Your task to perform on an android device: Go to Yahoo.com Image 0: 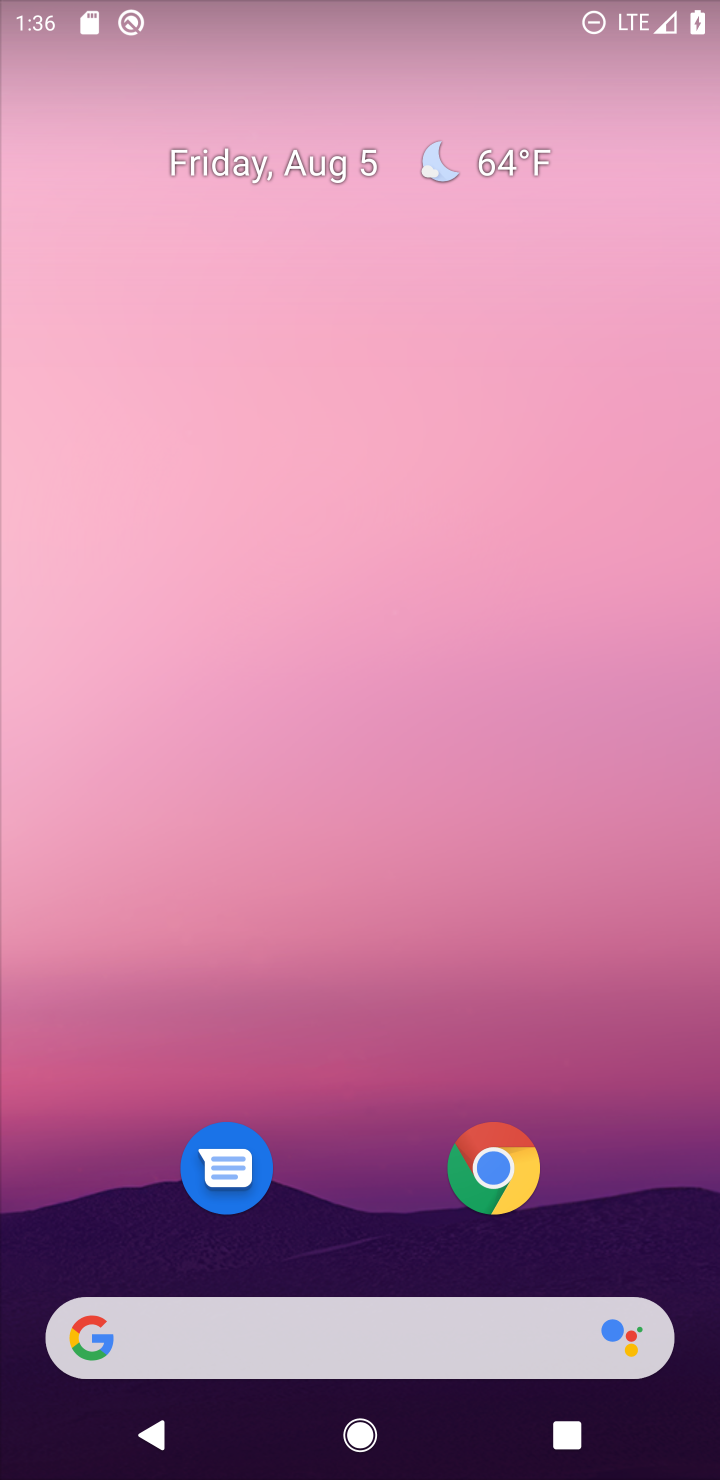
Step 0: drag from (560, 29) to (46, 188)
Your task to perform on an android device: Go to Yahoo.com Image 1: 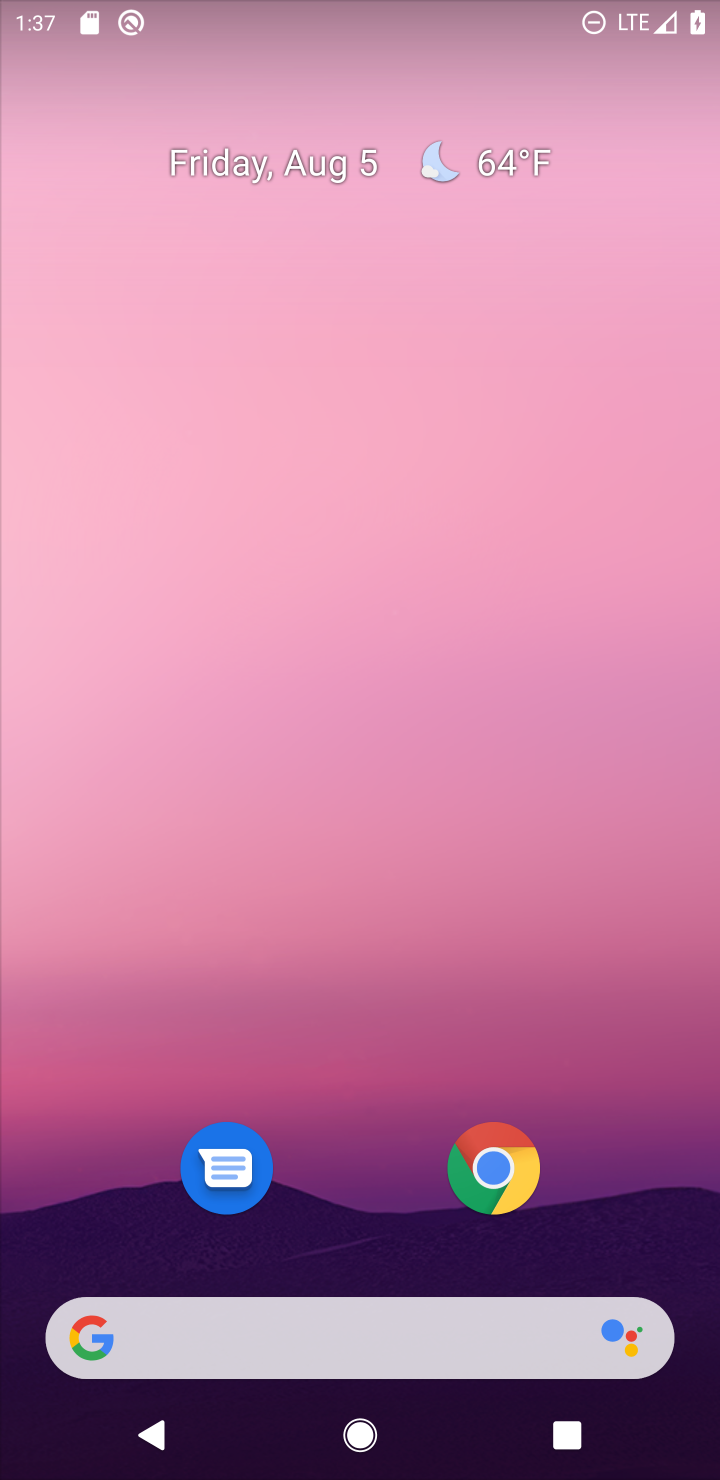
Step 1: drag from (526, 606) to (421, 151)
Your task to perform on an android device: Go to Yahoo.com Image 2: 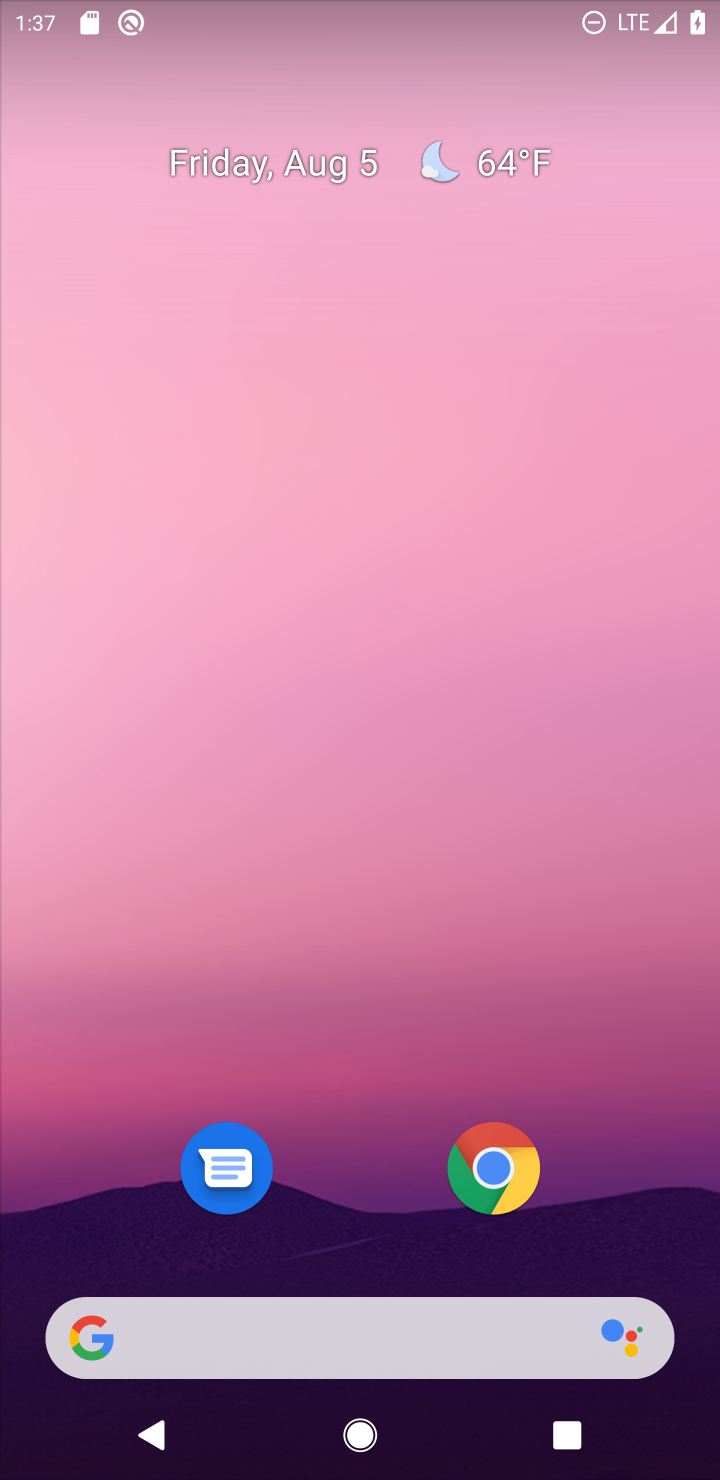
Step 2: drag from (693, 1220) to (422, 491)
Your task to perform on an android device: Go to Yahoo.com Image 3: 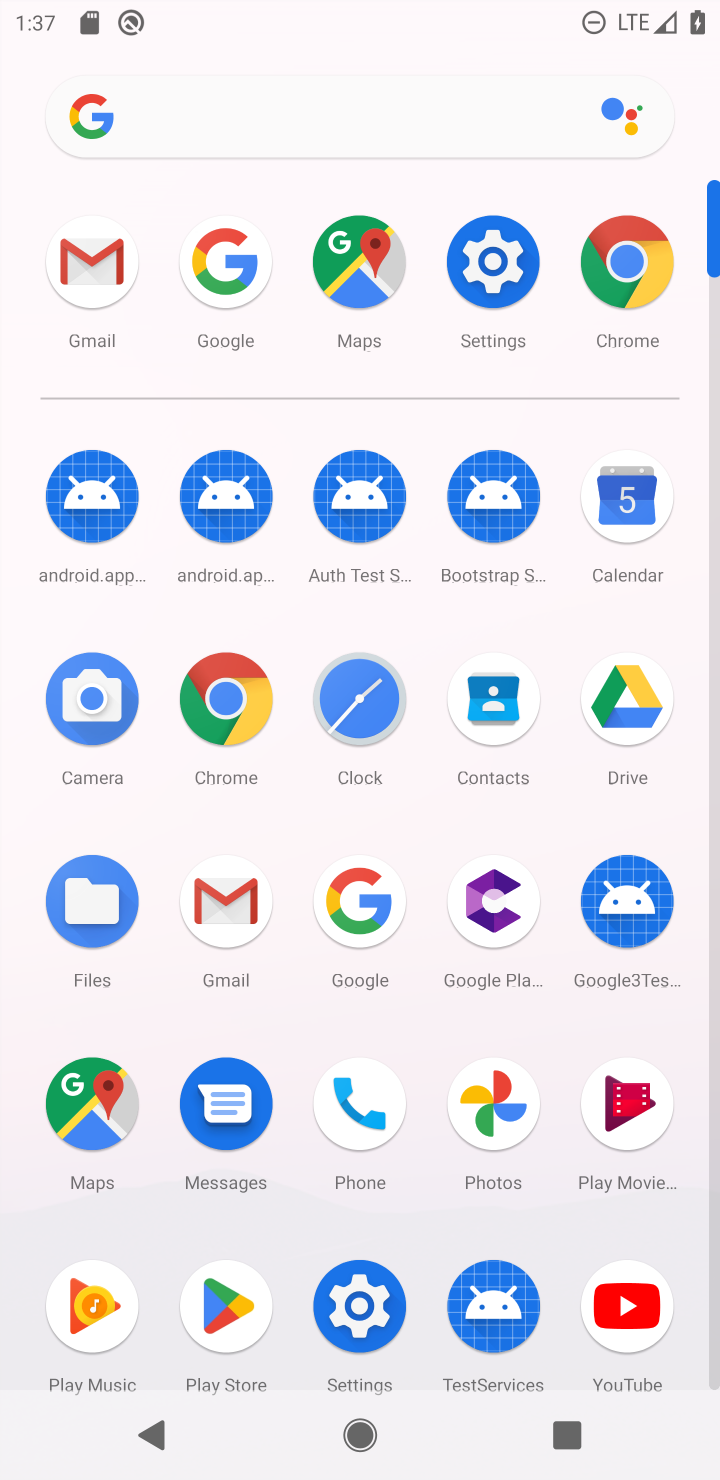
Step 3: click (365, 885)
Your task to perform on an android device: Go to Yahoo.com Image 4: 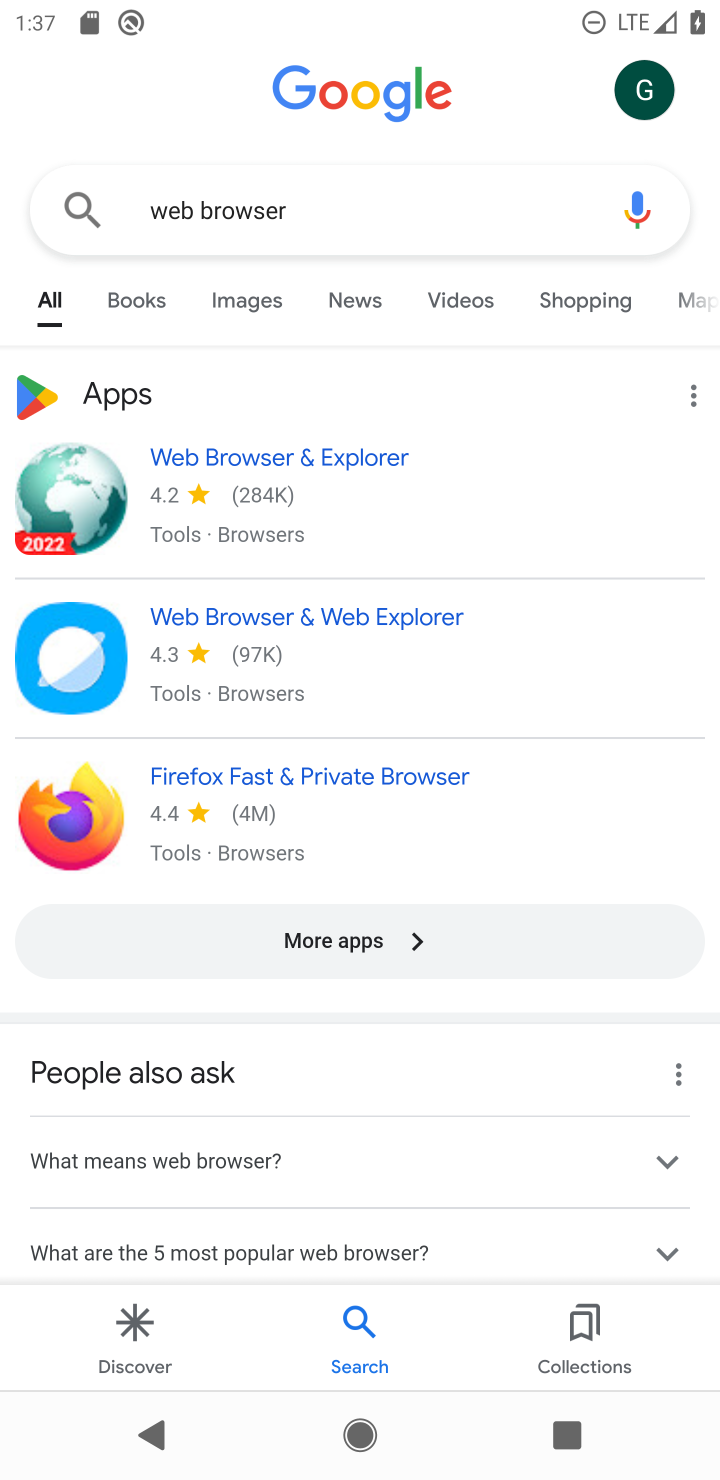
Step 4: press back button
Your task to perform on an android device: Go to Yahoo.com Image 5: 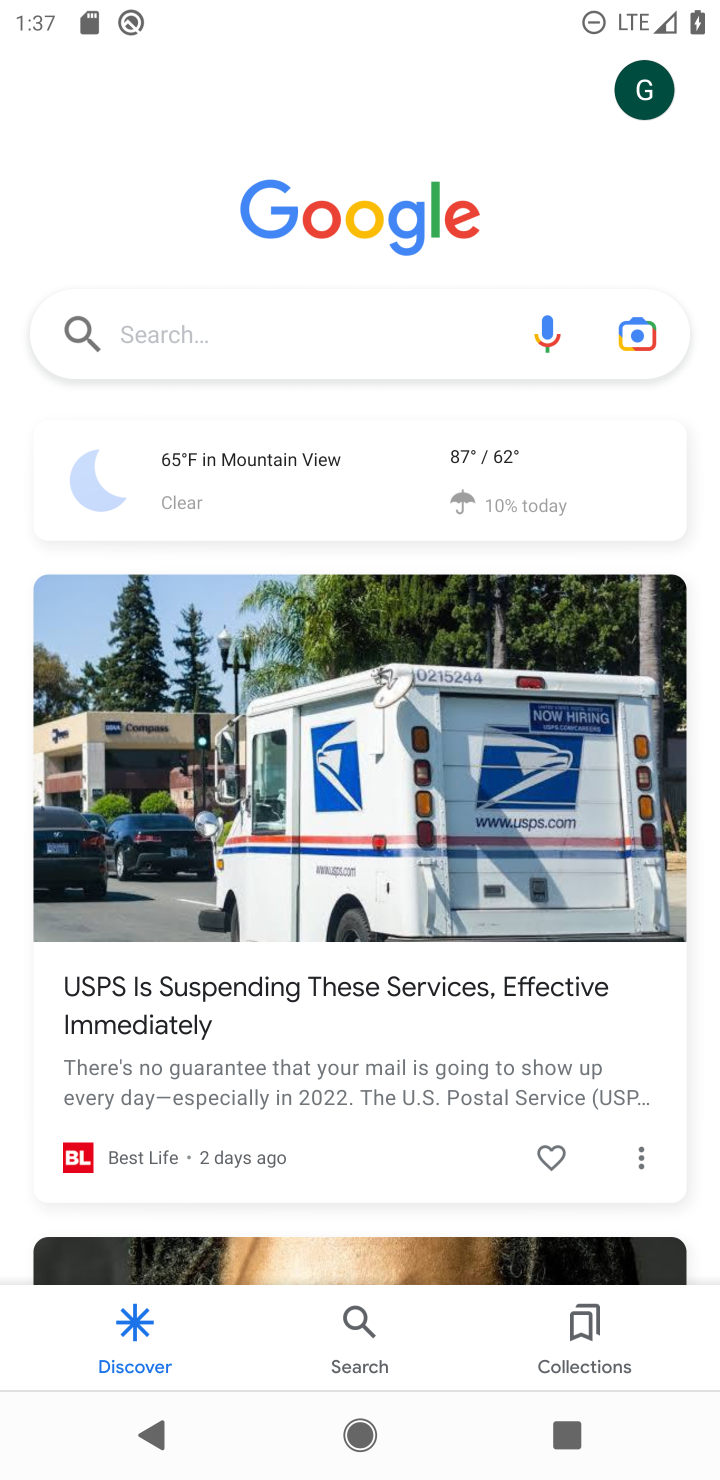
Step 5: click (176, 348)
Your task to perform on an android device: Go to Yahoo.com Image 6: 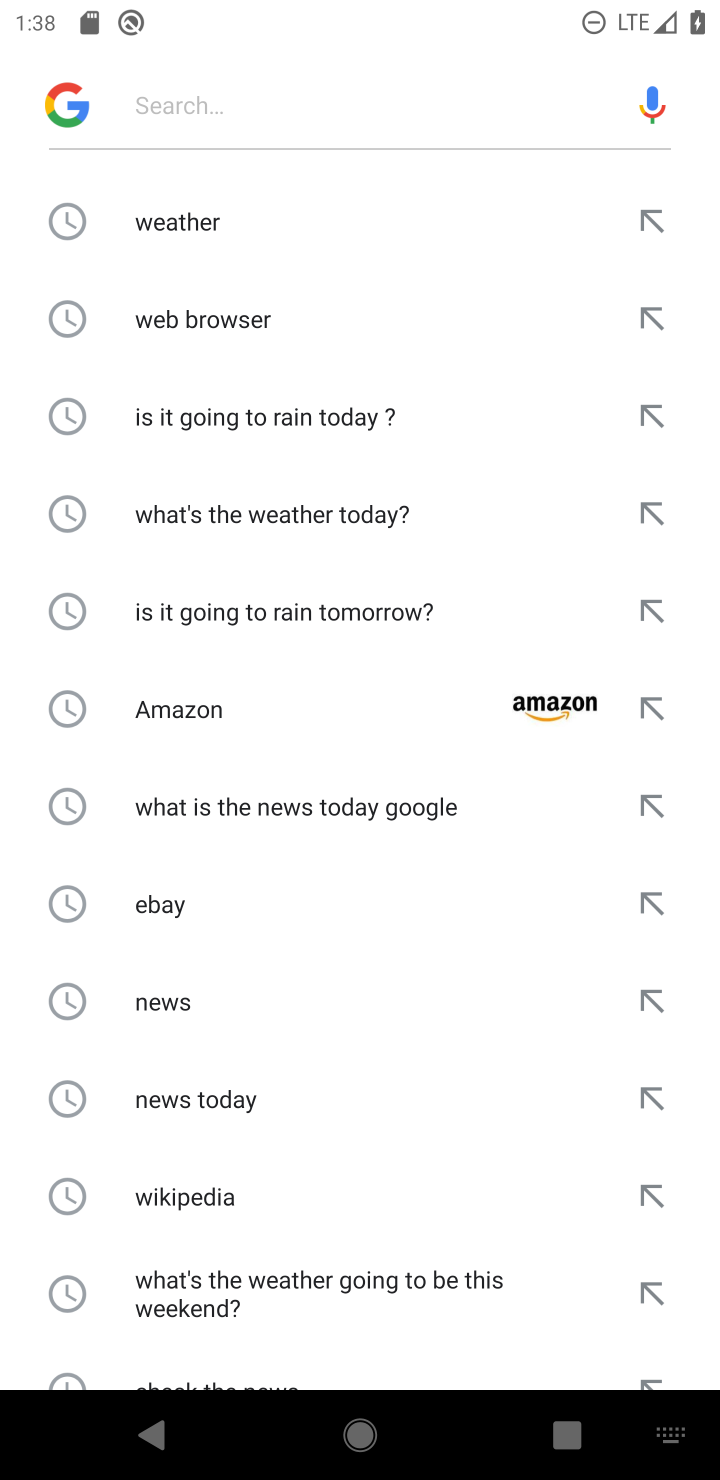
Step 6: type "Yahoo.com"
Your task to perform on an android device: Go to Yahoo.com Image 7: 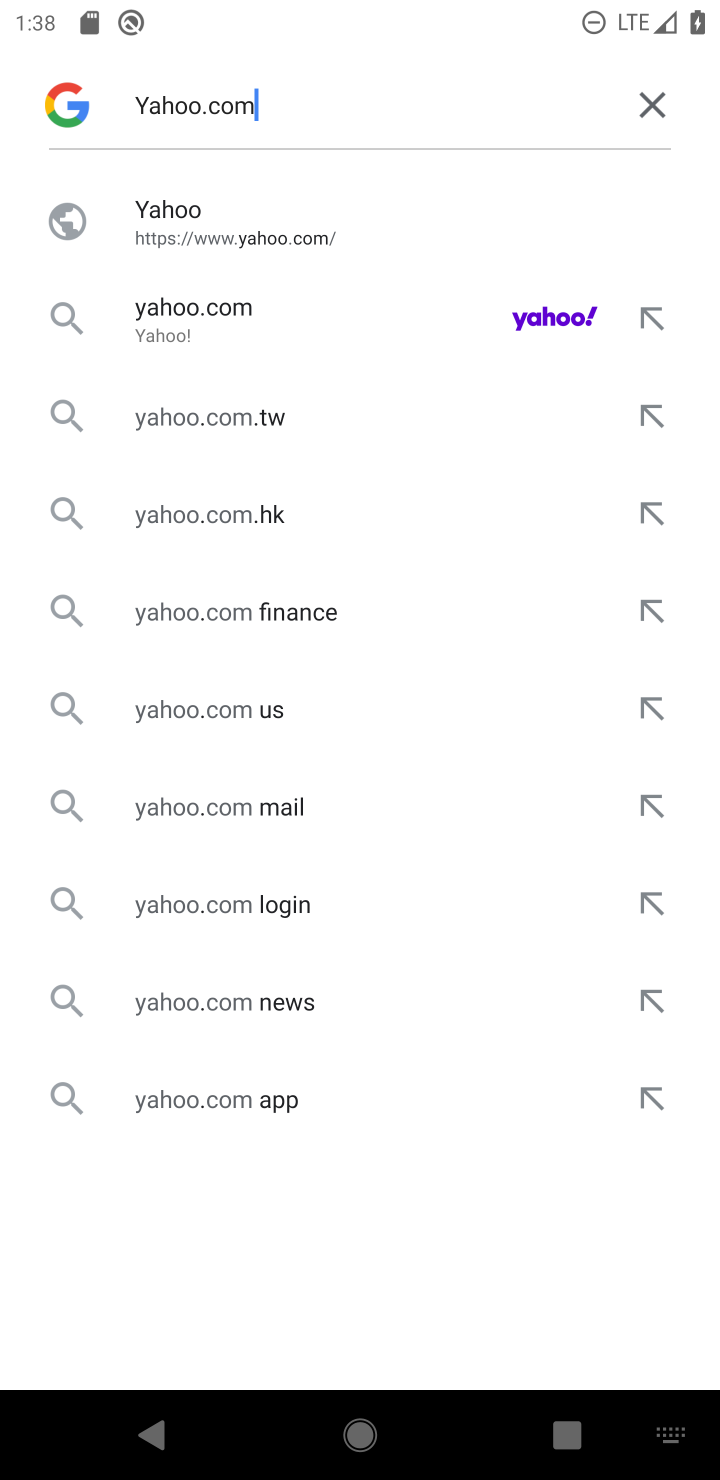
Step 7: drag from (242, 225) to (273, 429)
Your task to perform on an android device: Go to Yahoo.com Image 8: 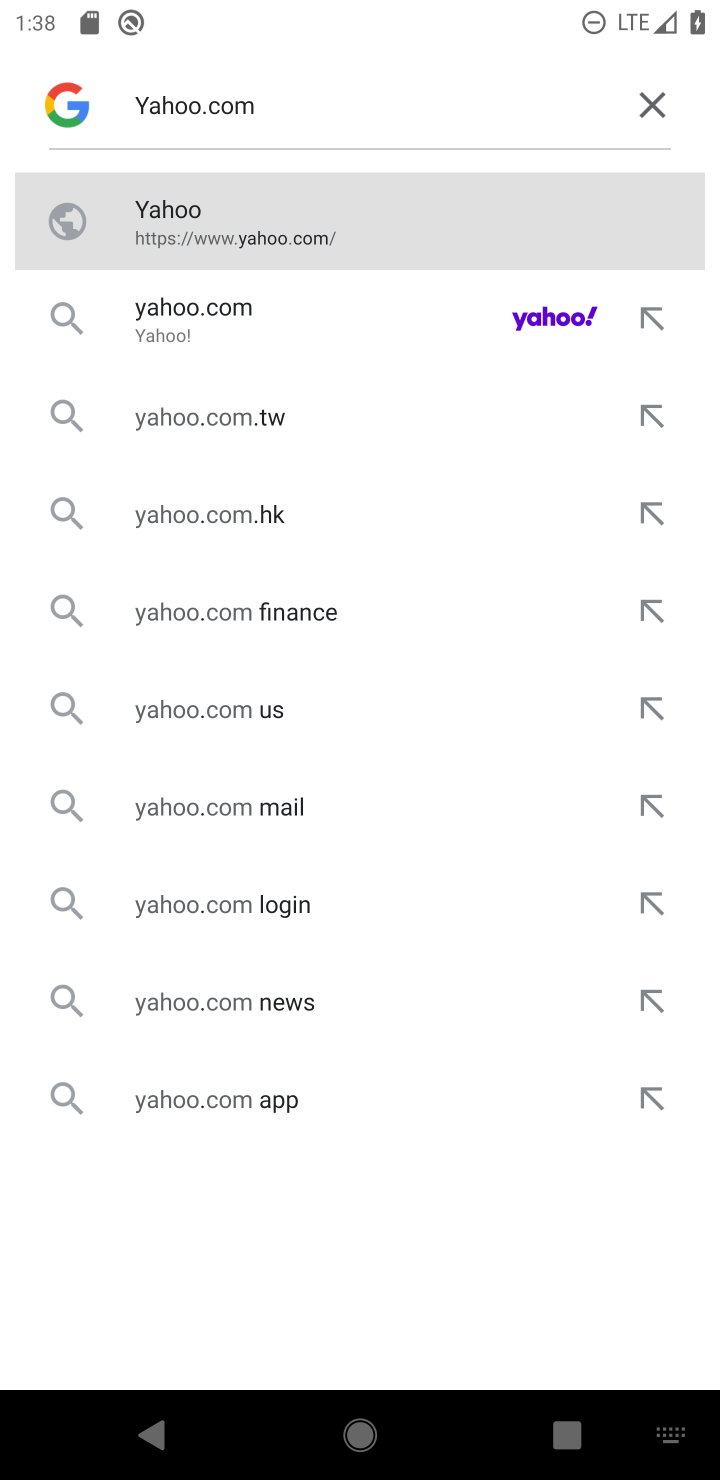
Step 8: click (182, 319)
Your task to perform on an android device: Go to Yahoo.com Image 9: 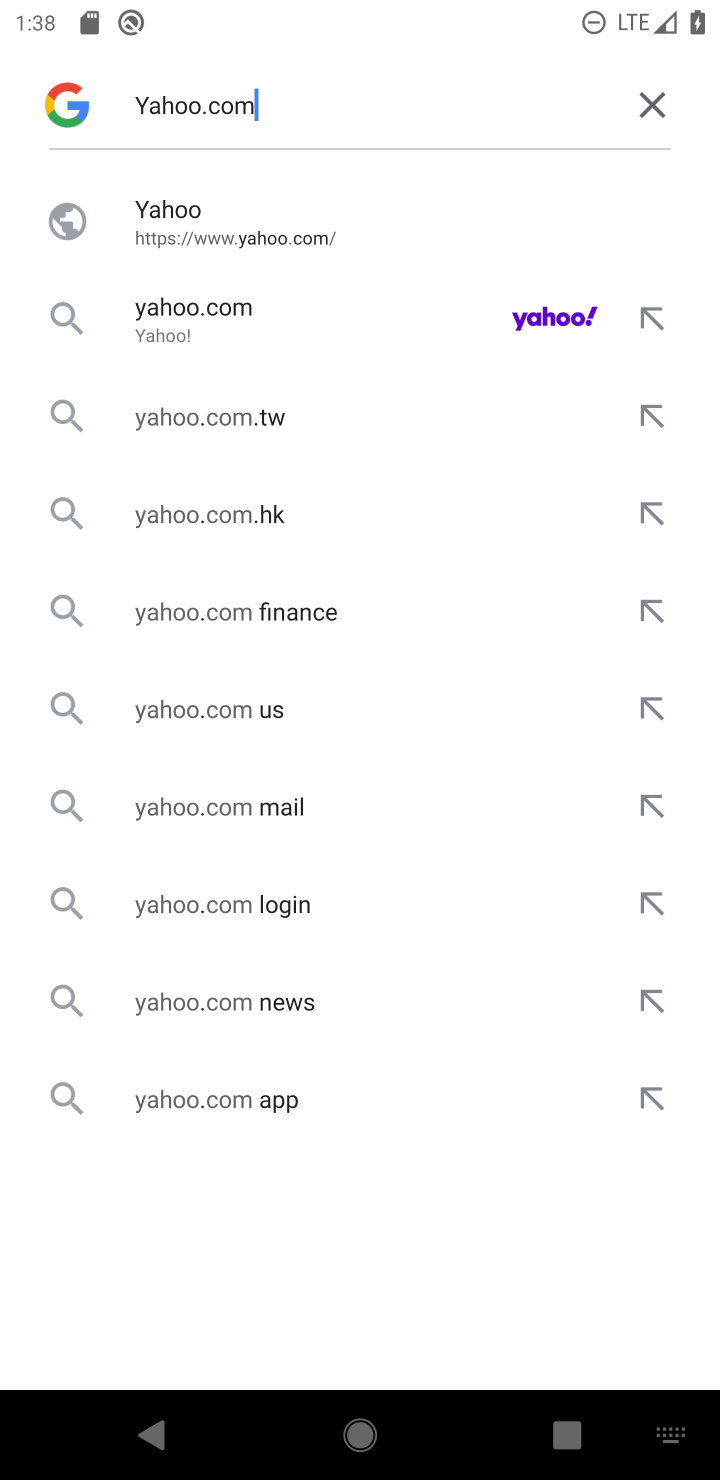
Step 9: click (199, 323)
Your task to perform on an android device: Go to Yahoo.com Image 10: 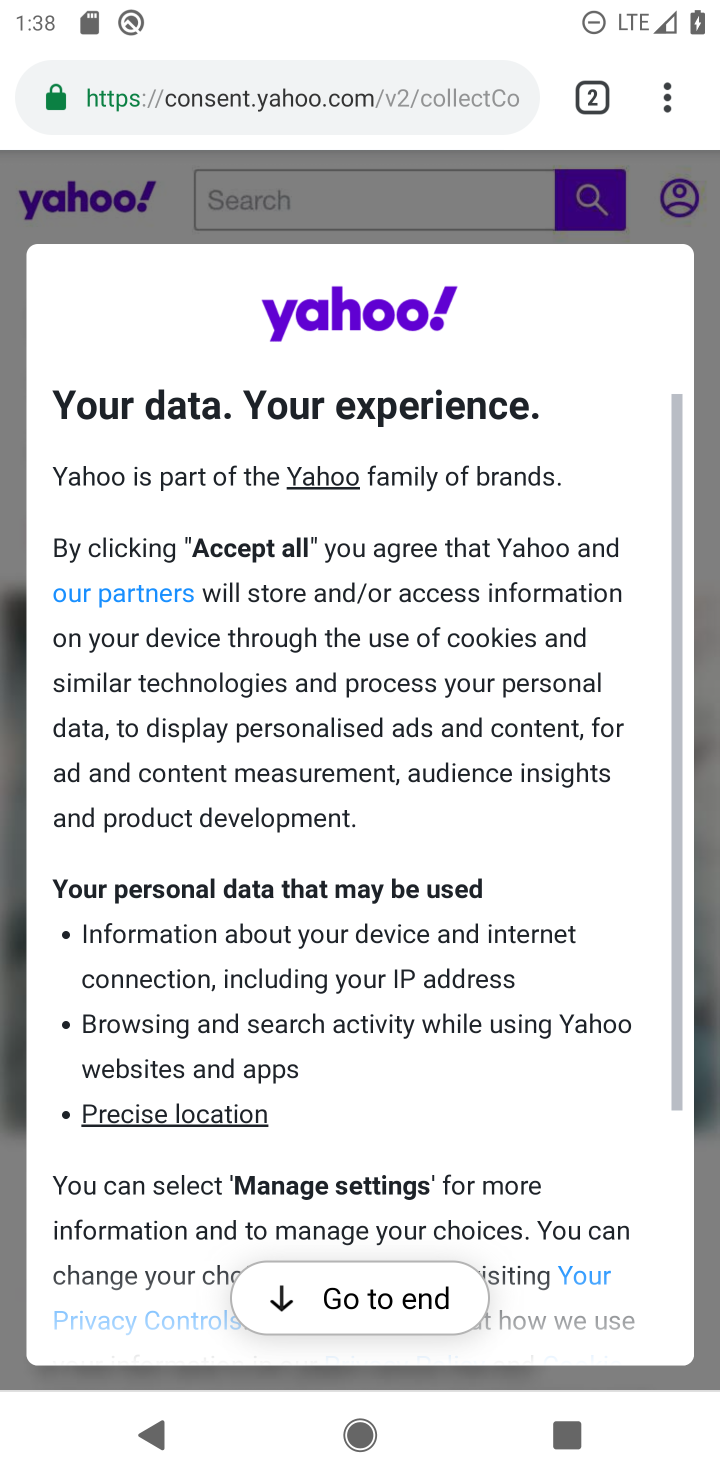
Step 10: task complete